Your task to perform on an android device: Search for razer deathadder on bestbuy.com, select the first entry, and add it to the cart. Image 0: 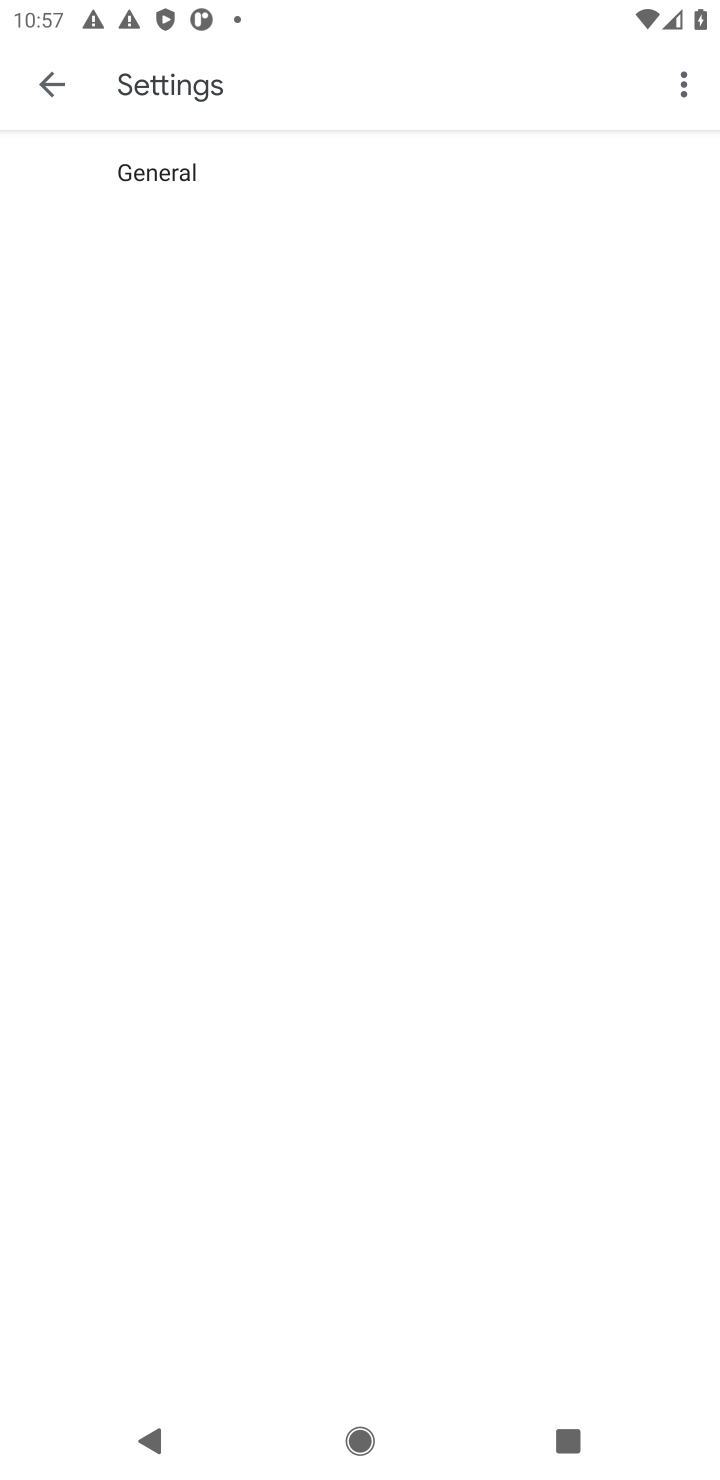
Step 0: press home button
Your task to perform on an android device: Search for razer deathadder on bestbuy.com, select the first entry, and add it to the cart. Image 1: 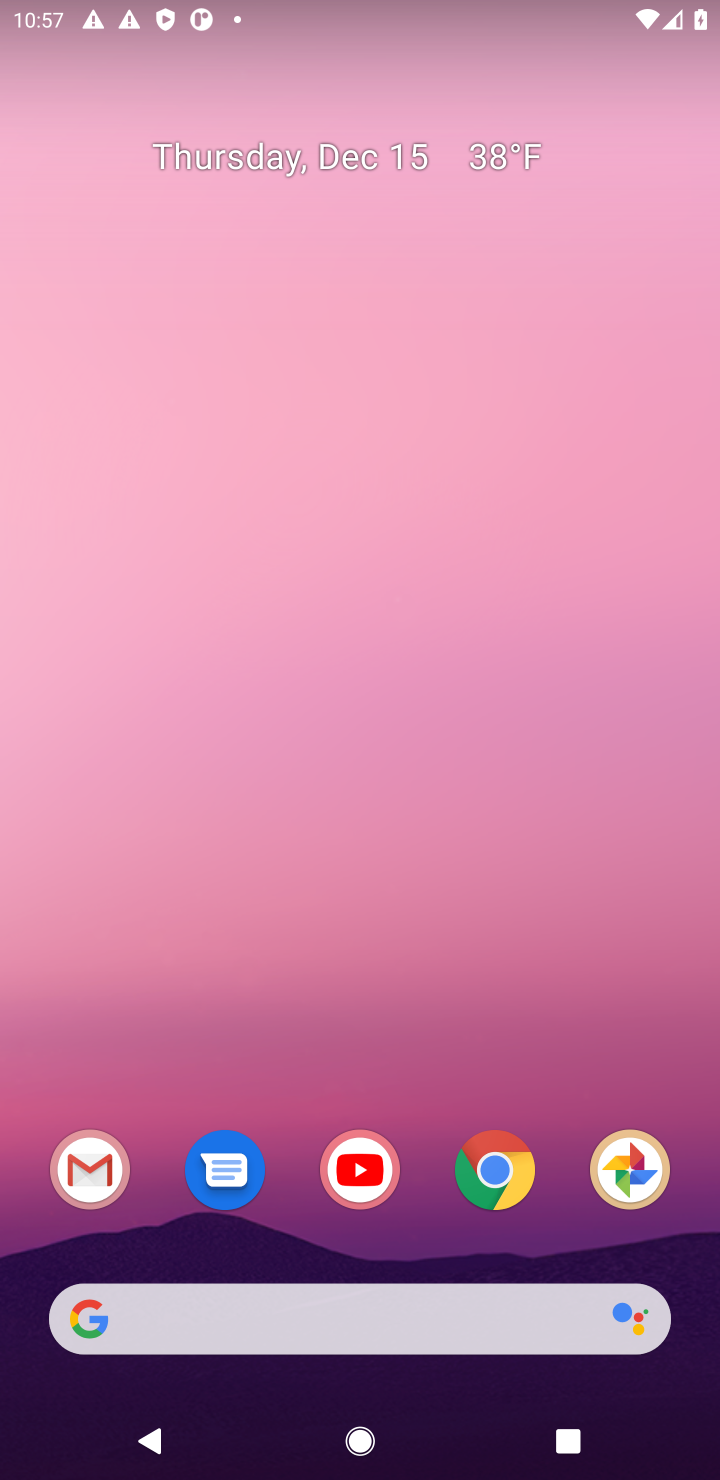
Step 1: click (500, 1166)
Your task to perform on an android device: Search for razer deathadder on bestbuy.com, select the first entry, and add it to the cart. Image 2: 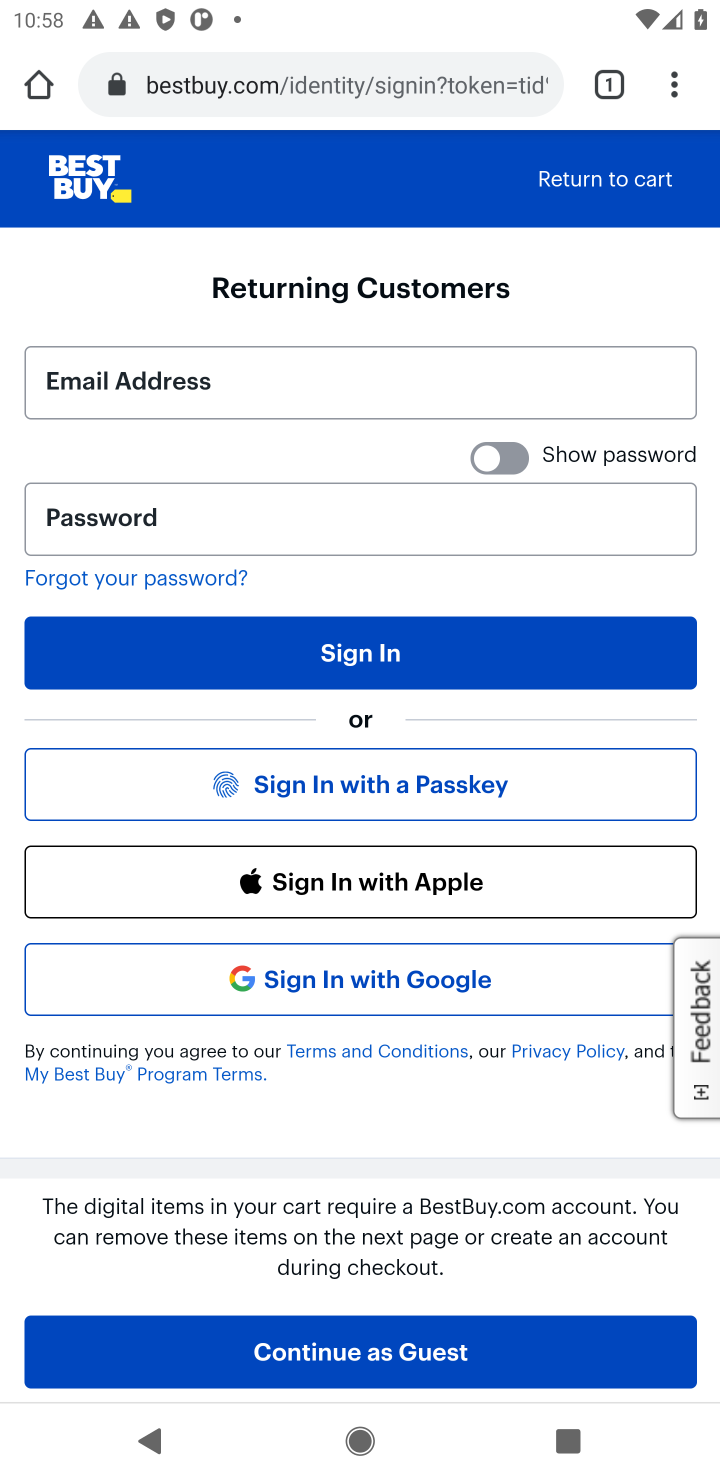
Step 2: press back button
Your task to perform on an android device: Search for razer deathadder on bestbuy.com, select the first entry, and add it to the cart. Image 3: 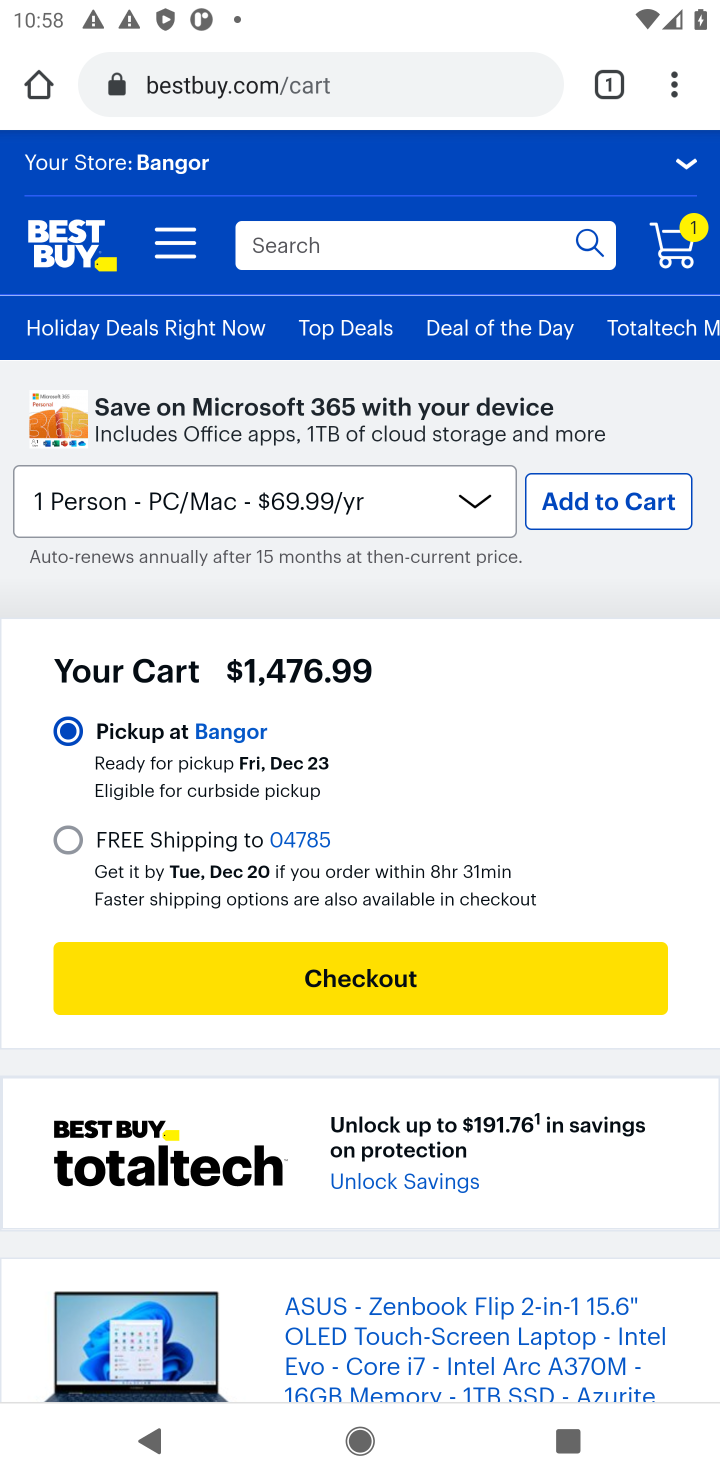
Step 3: click (278, 245)
Your task to perform on an android device: Search for razer deathadder on bestbuy.com, select the first entry, and add it to the cart. Image 4: 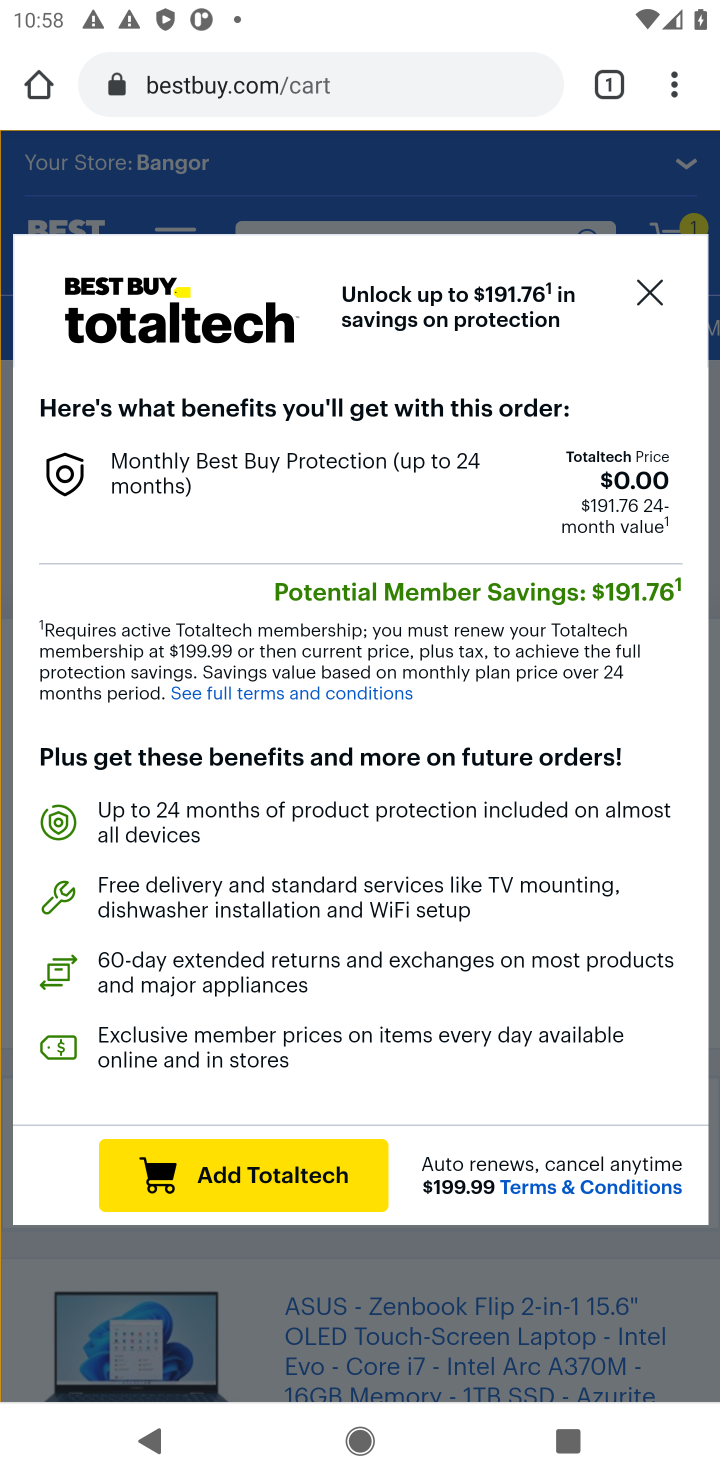
Step 4: click (648, 296)
Your task to perform on an android device: Search for razer deathadder on bestbuy.com, select the first entry, and add it to the cart. Image 5: 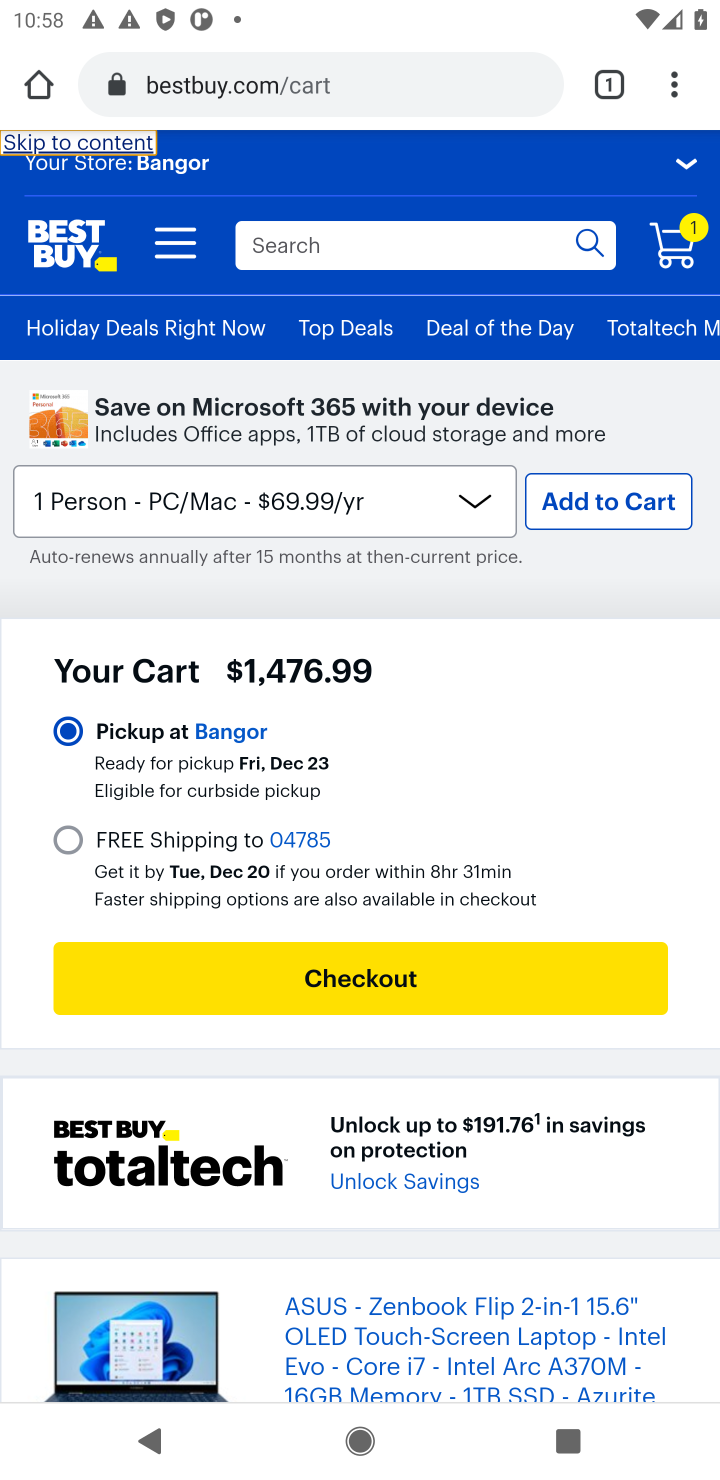
Step 5: click (311, 250)
Your task to perform on an android device: Search for razer deathadder on bestbuy.com, select the first entry, and add it to the cart. Image 6: 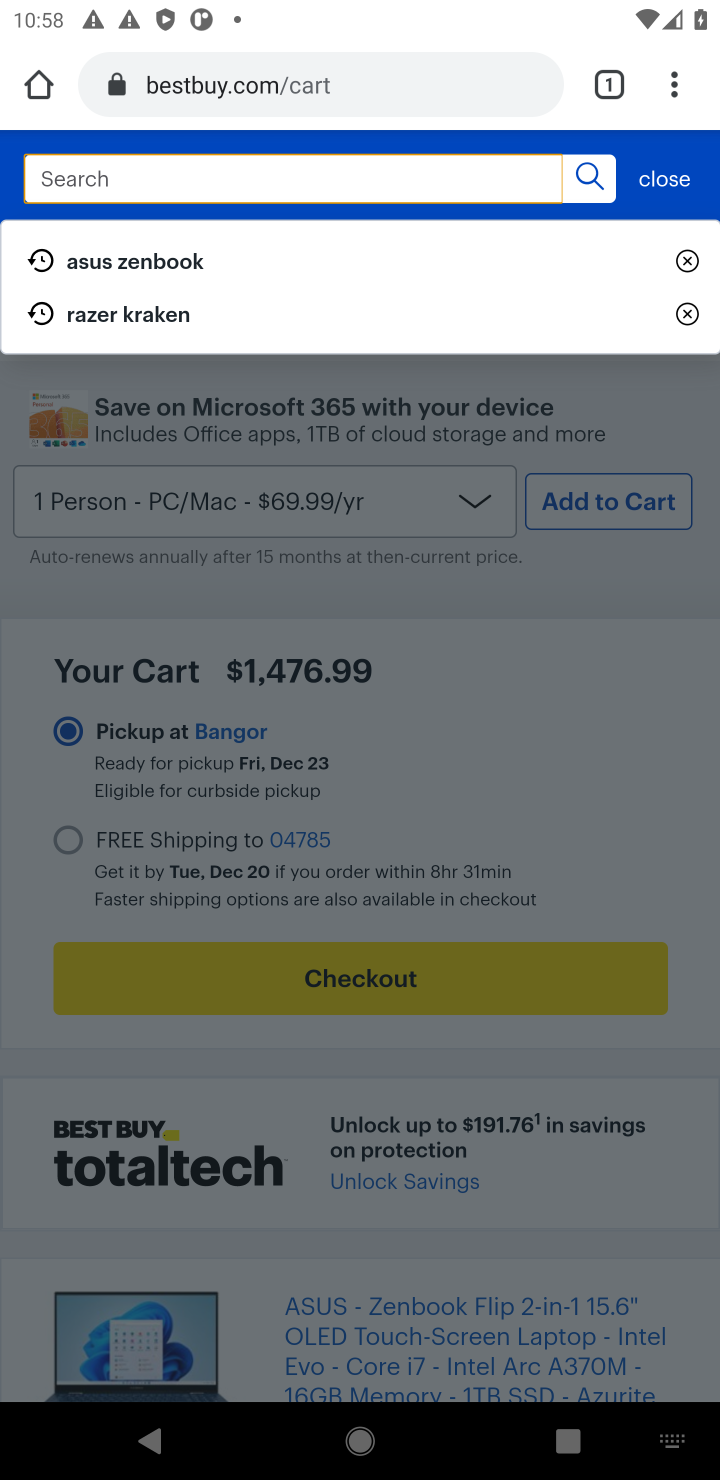
Step 6: type "razer deathadder"
Your task to perform on an android device: Search for razer deathadder on bestbuy.com, select the first entry, and add it to the cart. Image 7: 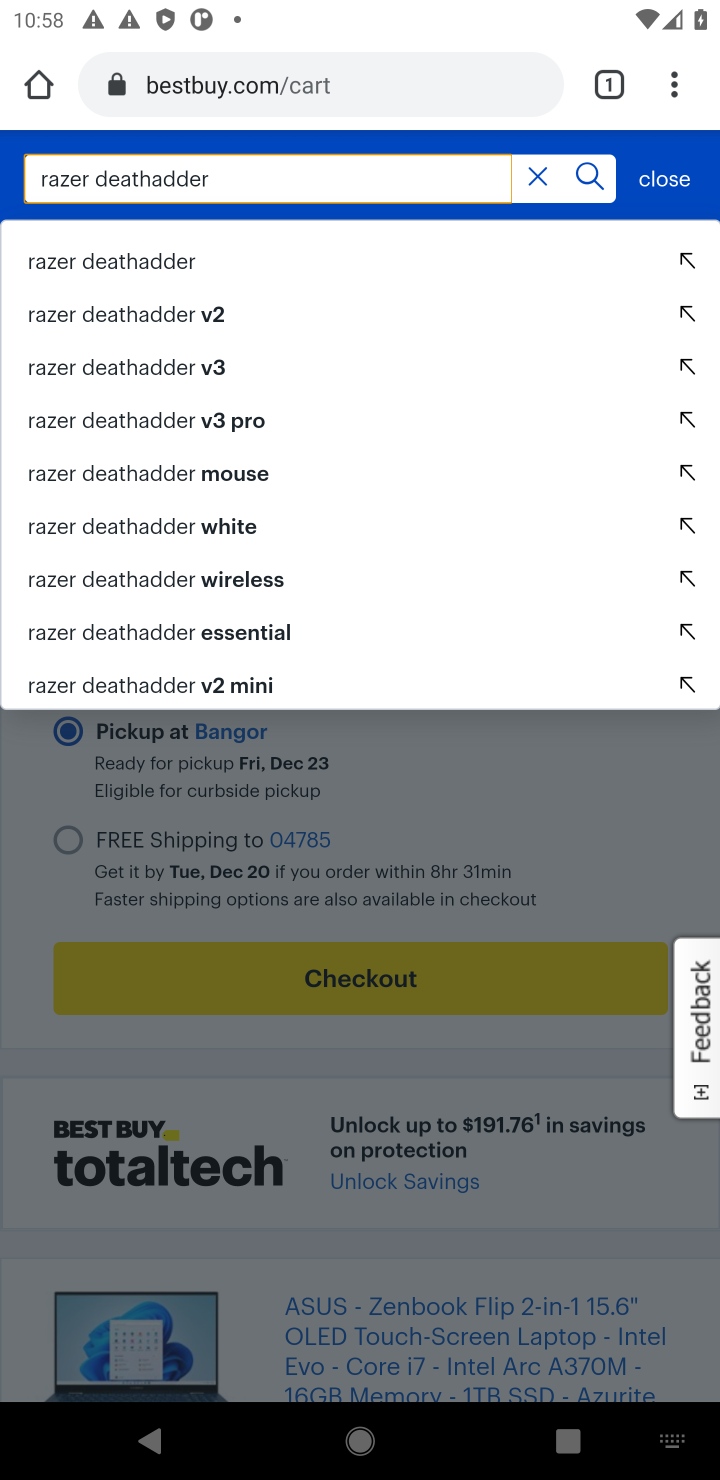
Step 7: click (115, 269)
Your task to perform on an android device: Search for razer deathadder on bestbuy.com, select the first entry, and add it to the cart. Image 8: 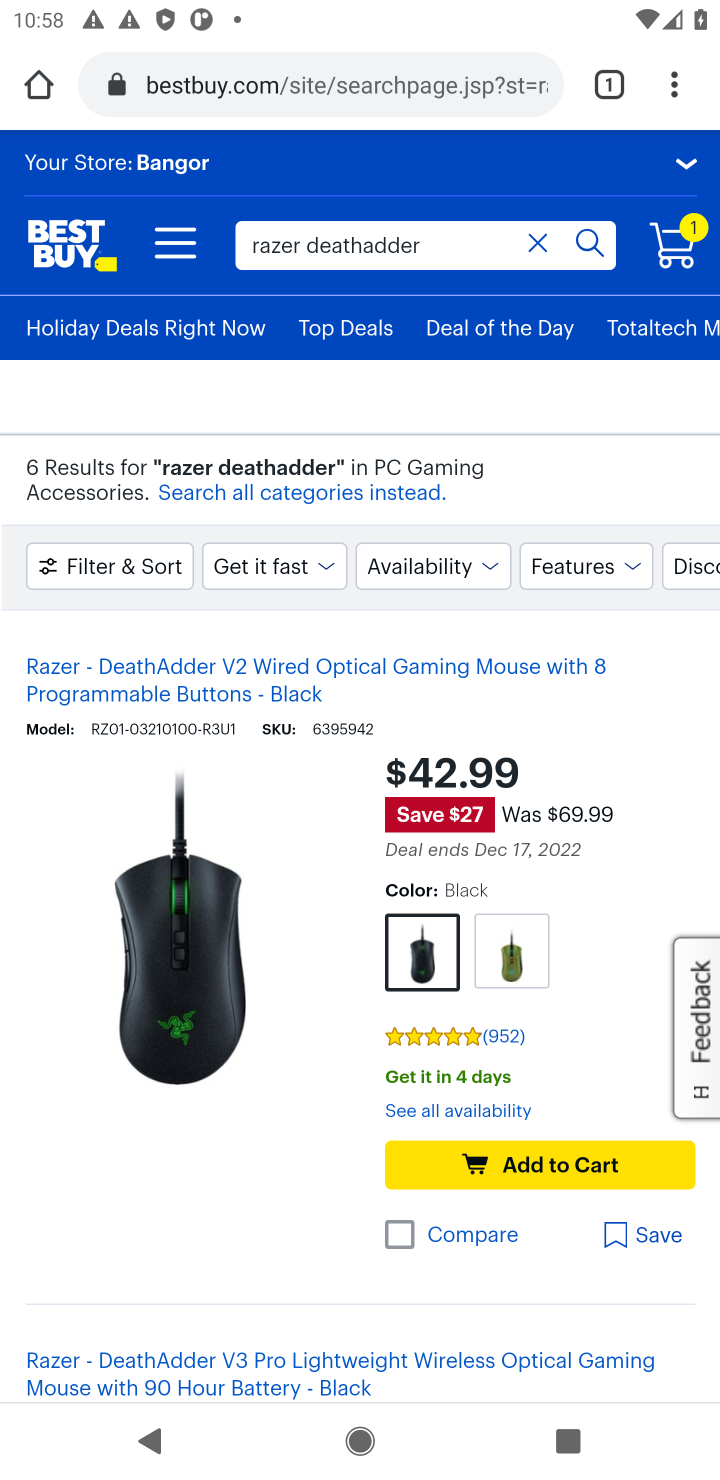
Step 8: click (564, 1160)
Your task to perform on an android device: Search for razer deathadder on bestbuy.com, select the first entry, and add it to the cart. Image 9: 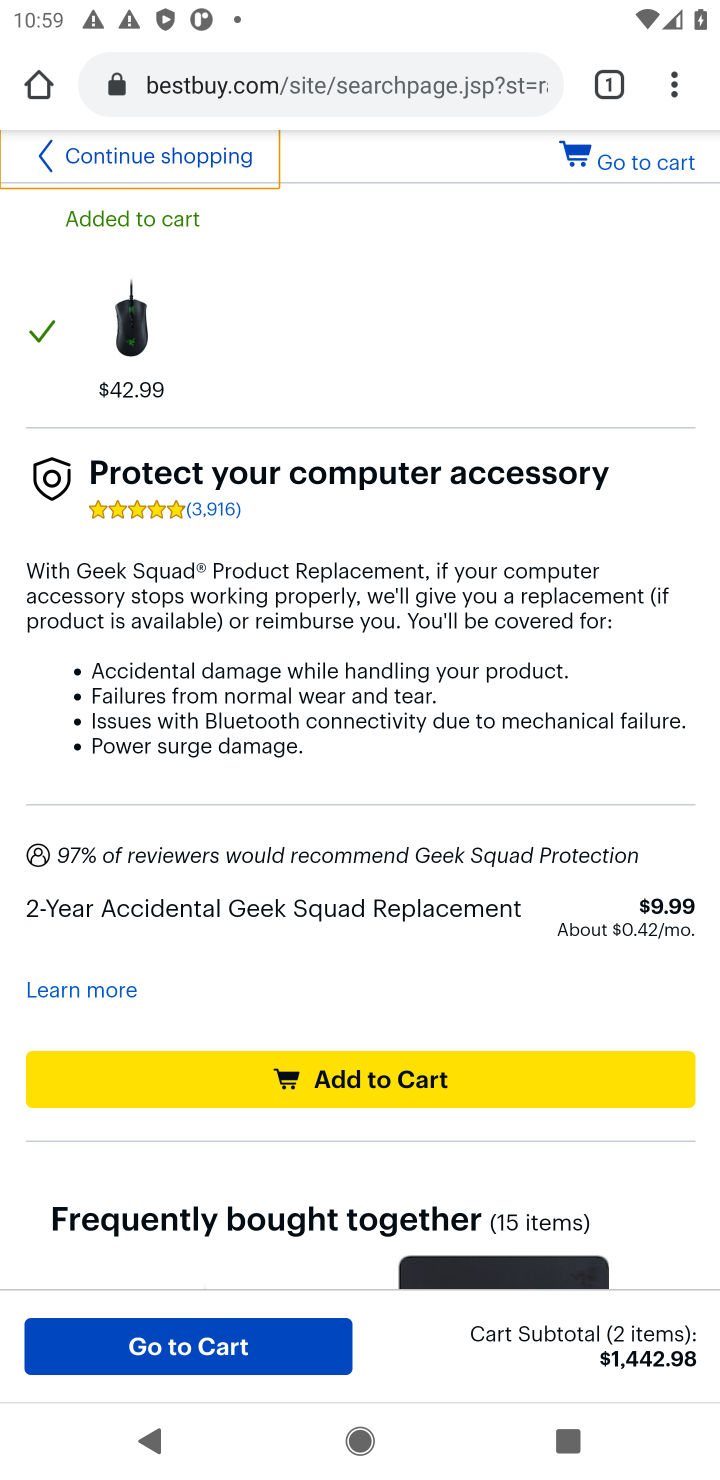
Step 9: task complete